Your task to perform on an android device: Is it going to rain this weekend? Image 0: 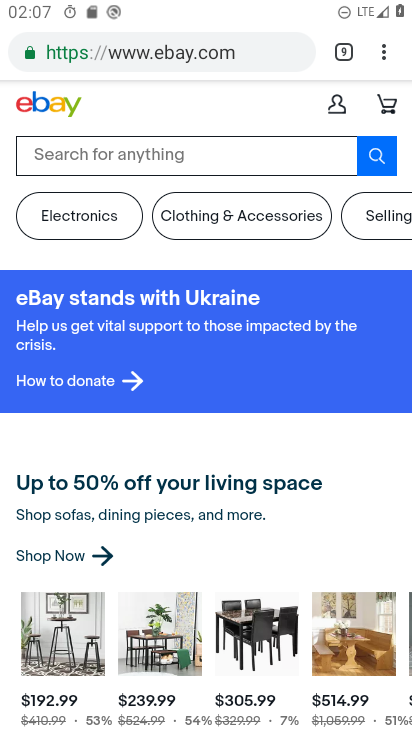
Step 0: press home button
Your task to perform on an android device: Is it going to rain this weekend? Image 1: 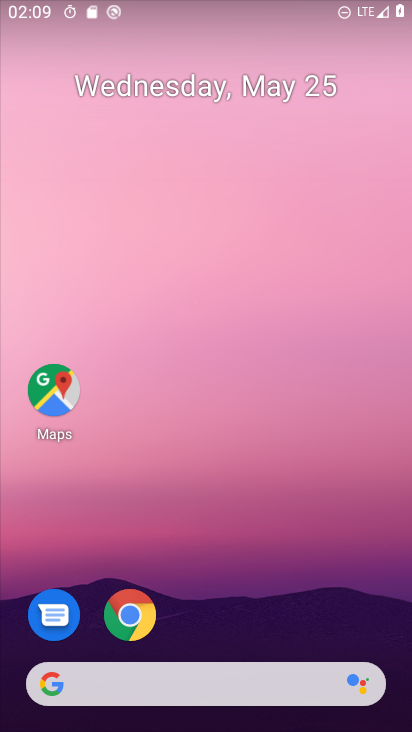
Step 1: drag from (243, 686) to (153, 56)
Your task to perform on an android device: Is it going to rain this weekend? Image 2: 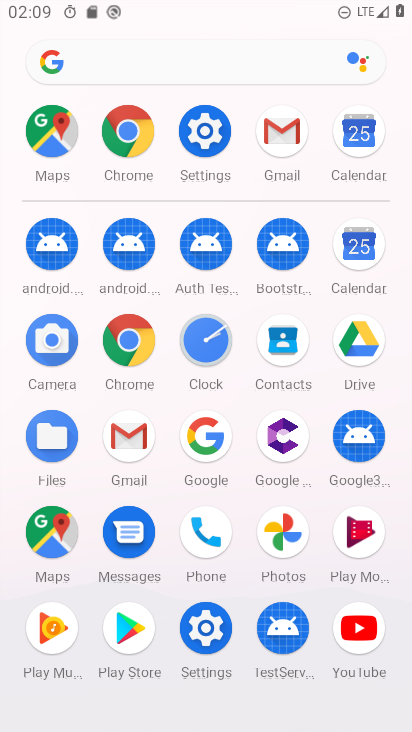
Step 2: click (142, 56)
Your task to perform on an android device: Is it going to rain this weekend? Image 3: 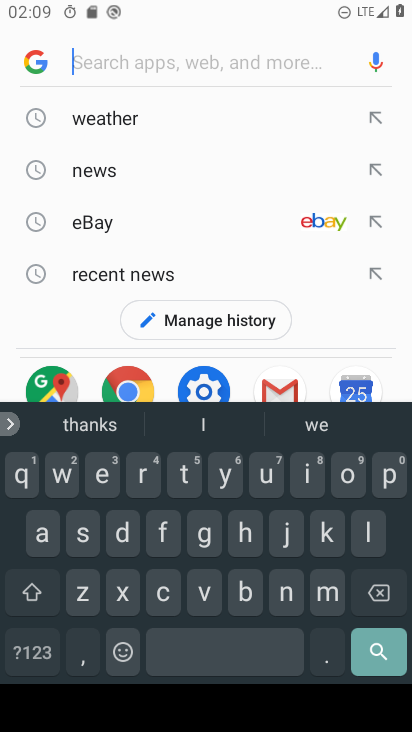
Step 3: click (155, 116)
Your task to perform on an android device: Is it going to rain this weekend? Image 4: 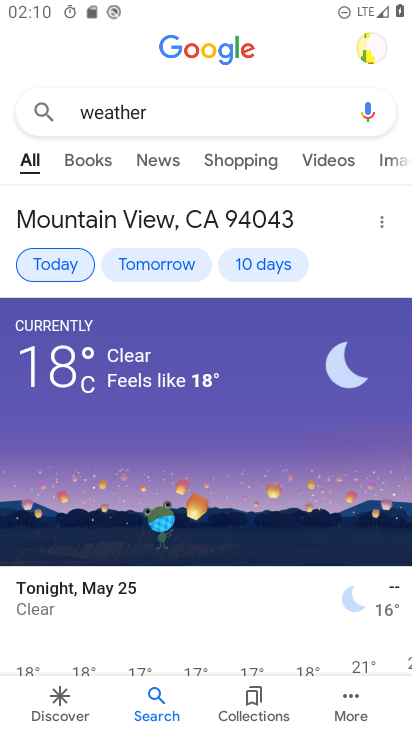
Step 4: click (265, 275)
Your task to perform on an android device: Is it going to rain this weekend? Image 5: 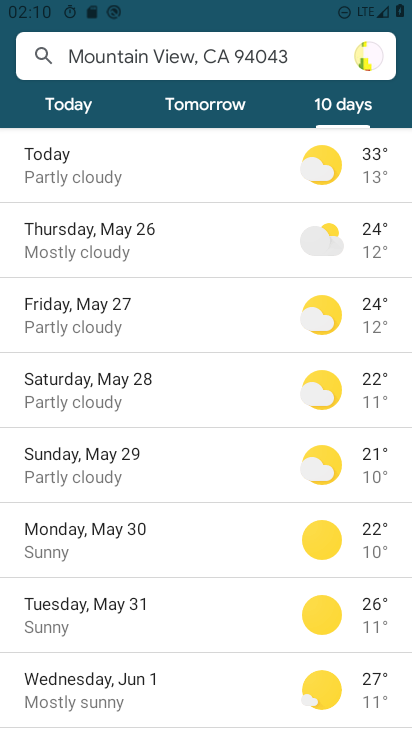
Step 5: task complete